Your task to perform on an android device: change the clock display to digital Image 0: 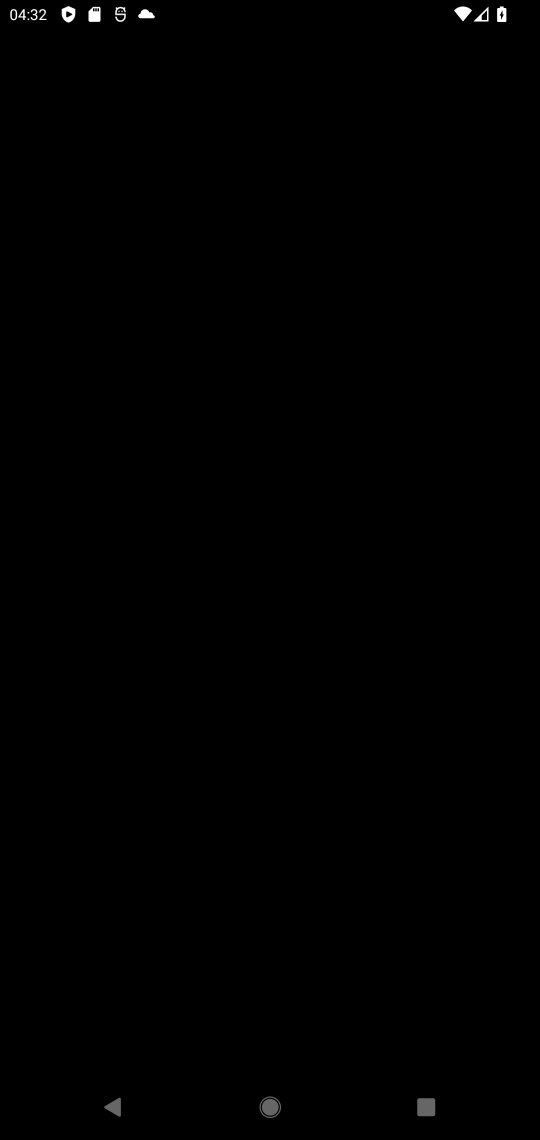
Step 0: press home button
Your task to perform on an android device: change the clock display to digital Image 1: 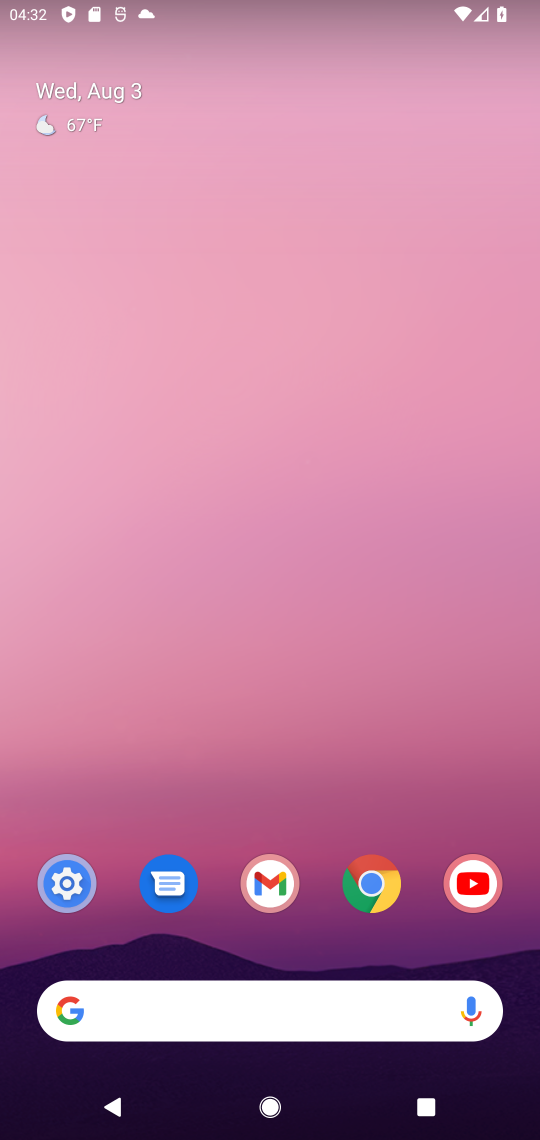
Step 1: drag from (296, 729) to (369, 23)
Your task to perform on an android device: change the clock display to digital Image 2: 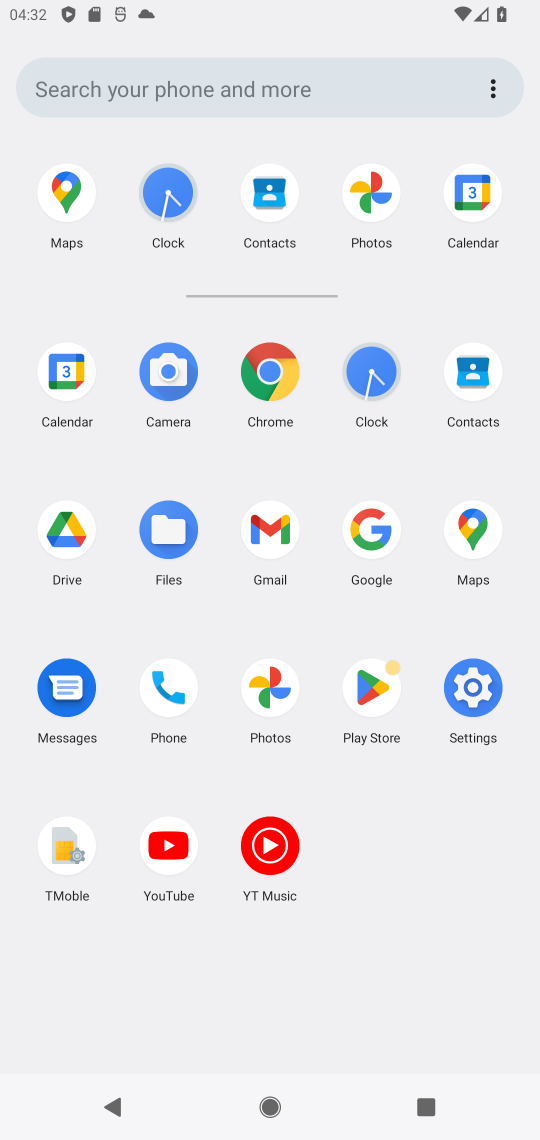
Step 2: click (375, 391)
Your task to perform on an android device: change the clock display to digital Image 3: 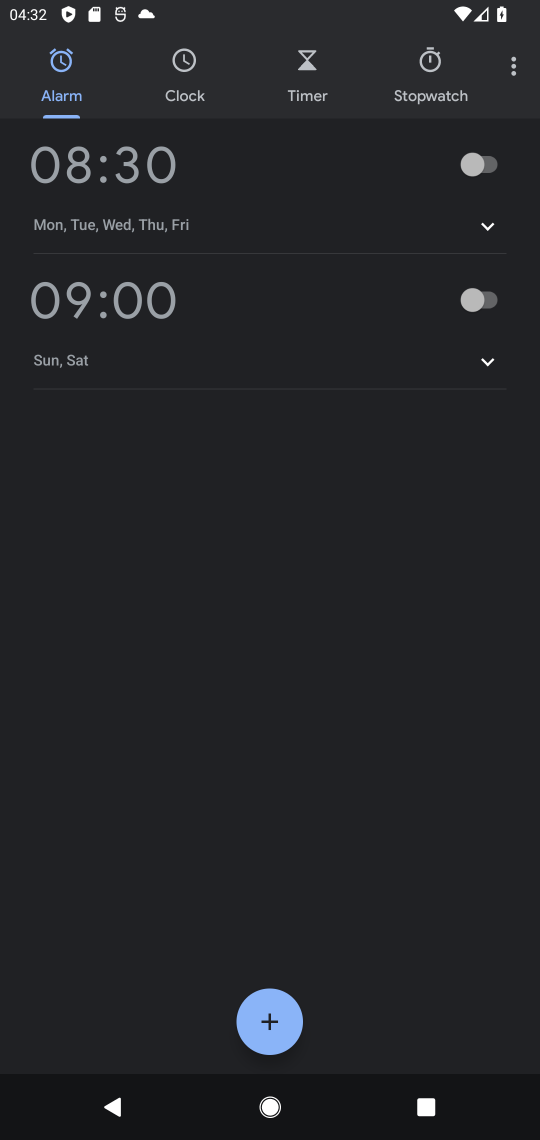
Step 3: click (504, 74)
Your task to perform on an android device: change the clock display to digital Image 4: 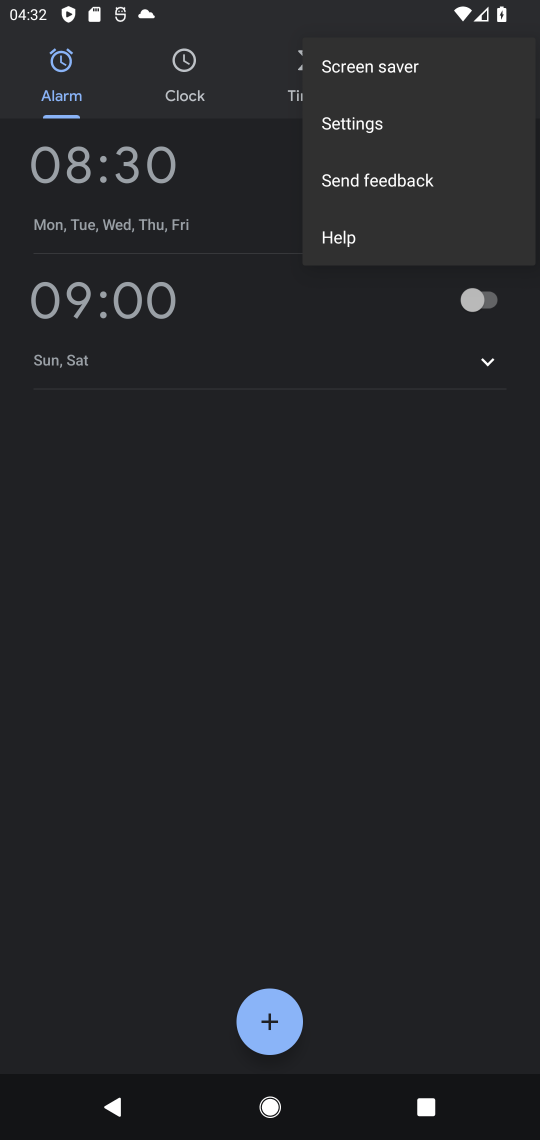
Step 4: click (367, 138)
Your task to perform on an android device: change the clock display to digital Image 5: 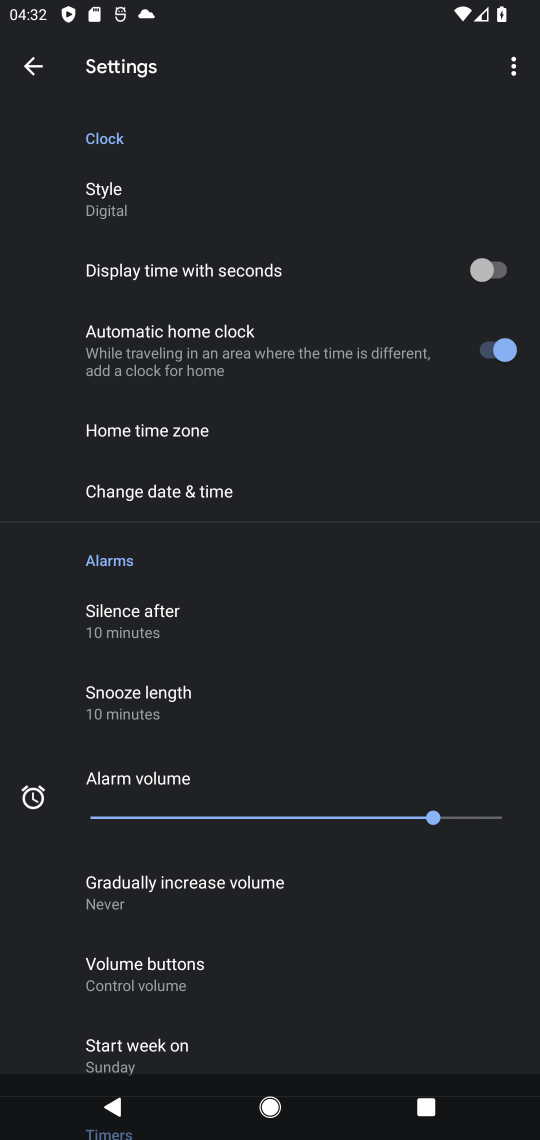
Step 5: click (135, 208)
Your task to perform on an android device: change the clock display to digital Image 6: 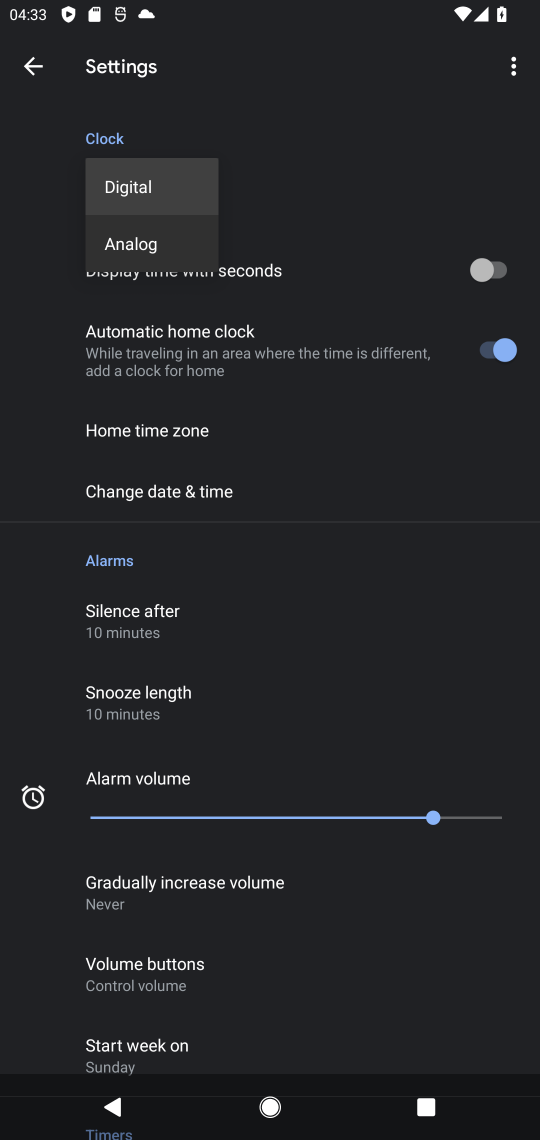
Step 6: task complete